Your task to perform on an android device: open the mobile data screen to see how much data has been used Image 0: 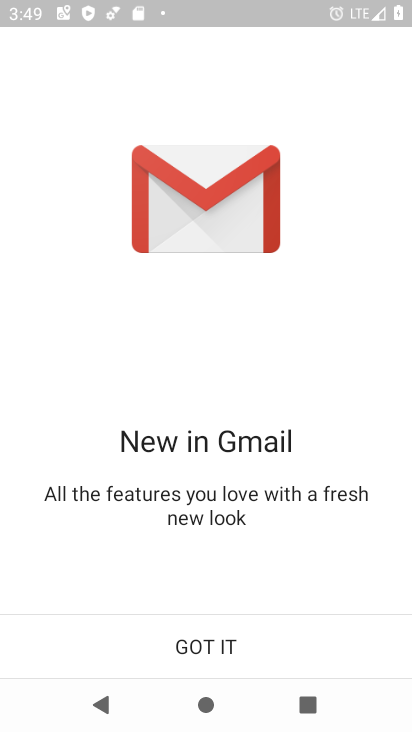
Step 0: press home button
Your task to perform on an android device: open the mobile data screen to see how much data has been used Image 1: 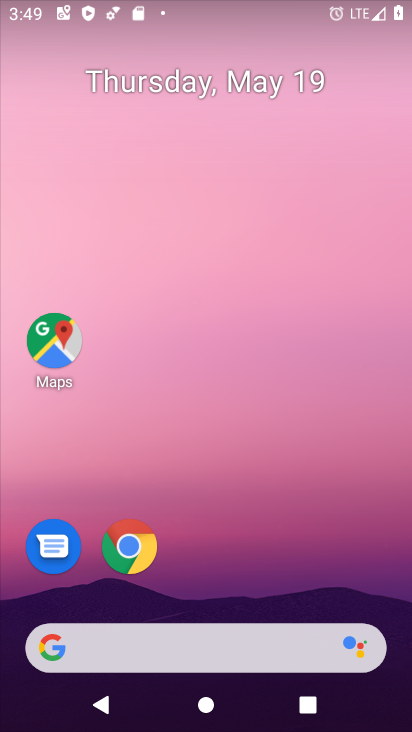
Step 1: drag from (250, 586) to (282, 39)
Your task to perform on an android device: open the mobile data screen to see how much data has been used Image 2: 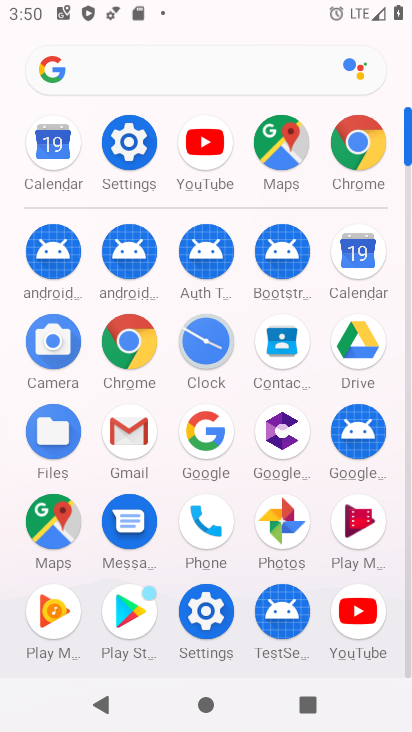
Step 2: click (128, 127)
Your task to perform on an android device: open the mobile data screen to see how much data has been used Image 3: 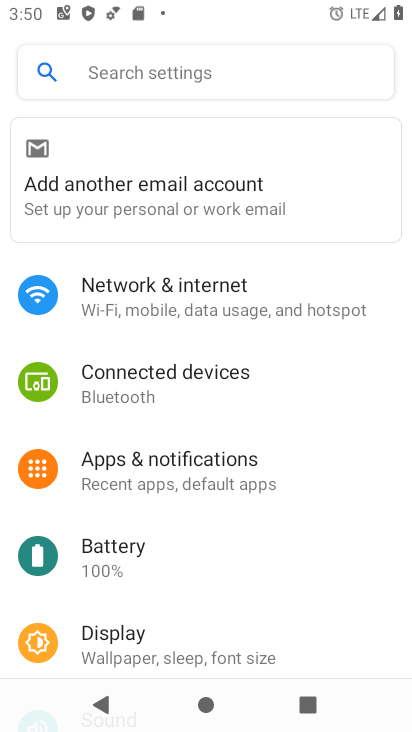
Step 3: click (172, 301)
Your task to perform on an android device: open the mobile data screen to see how much data has been used Image 4: 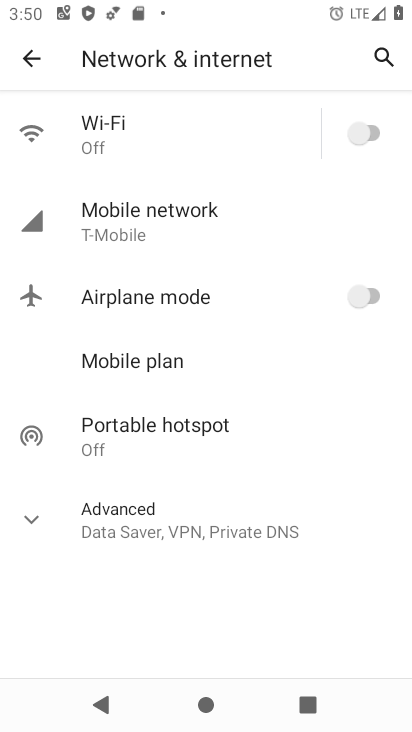
Step 4: click (165, 227)
Your task to perform on an android device: open the mobile data screen to see how much data has been used Image 5: 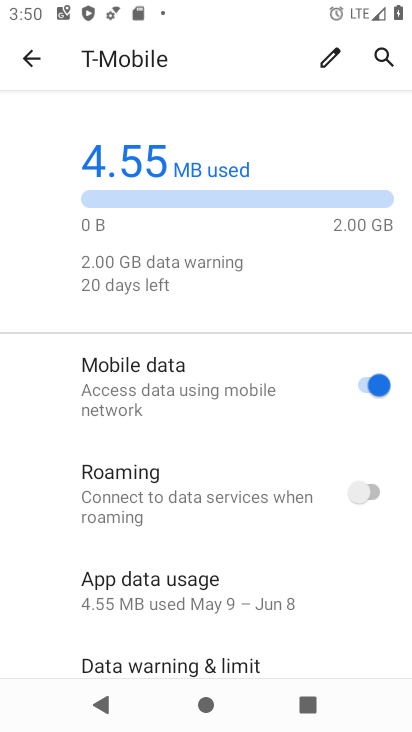
Step 5: click (212, 584)
Your task to perform on an android device: open the mobile data screen to see how much data has been used Image 6: 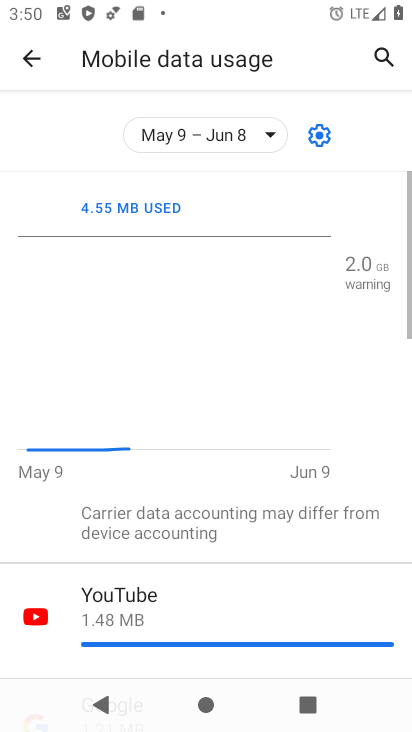
Step 6: task complete